Your task to perform on an android device: Go to battery settings Image 0: 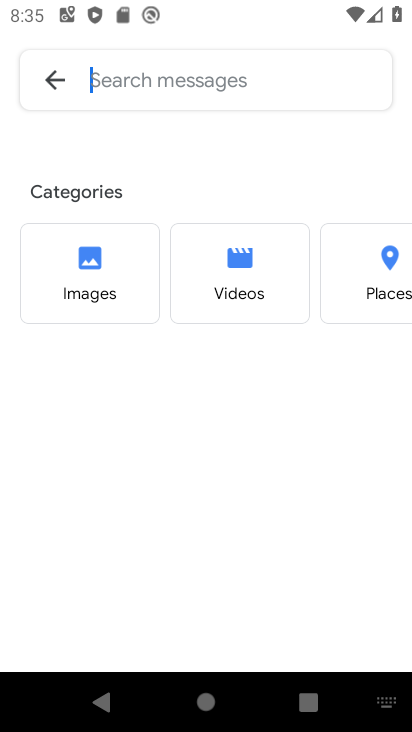
Step 0: press home button
Your task to perform on an android device: Go to battery settings Image 1: 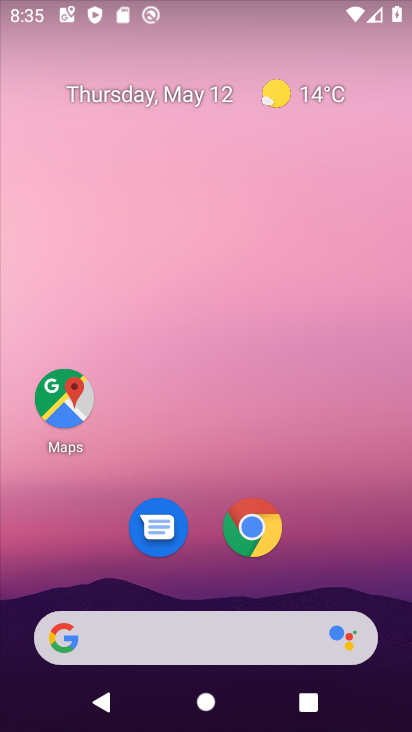
Step 1: drag from (329, 545) to (349, 118)
Your task to perform on an android device: Go to battery settings Image 2: 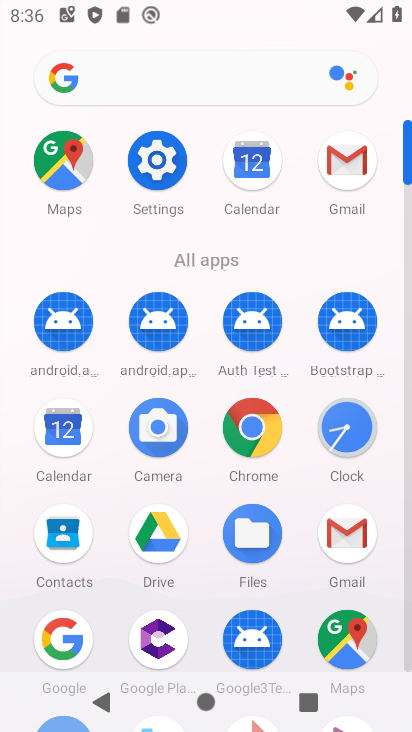
Step 2: click (179, 177)
Your task to perform on an android device: Go to battery settings Image 3: 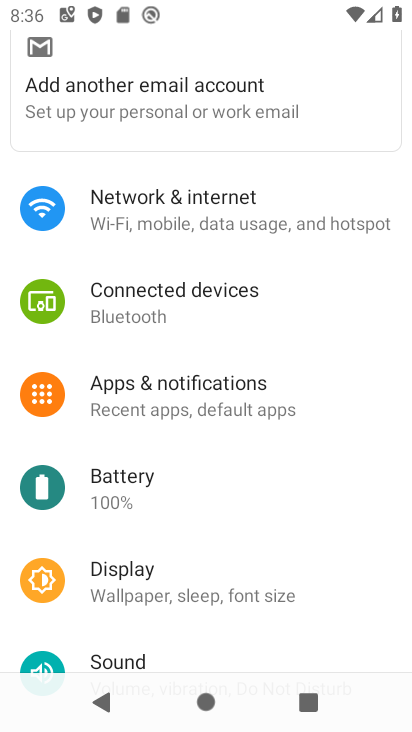
Step 3: click (191, 485)
Your task to perform on an android device: Go to battery settings Image 4: 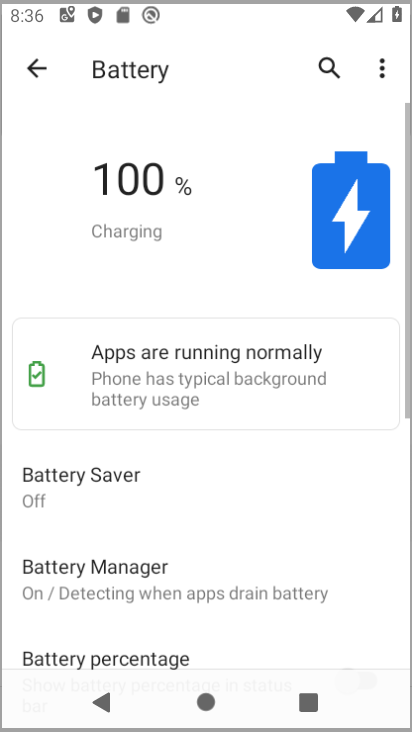
Step 4: task complete